Your task to perform on an android device: Open calendar and show me the third week of next month Image 0: 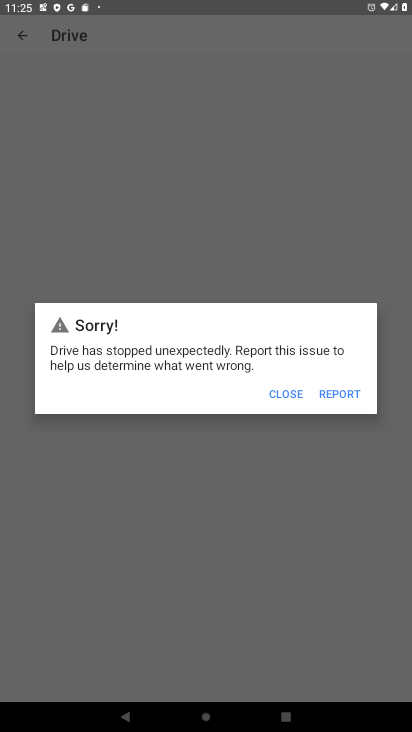
Step 0: press home button
Your task to perform on an android device: Open calendar and show me the third week of next month Image 1: 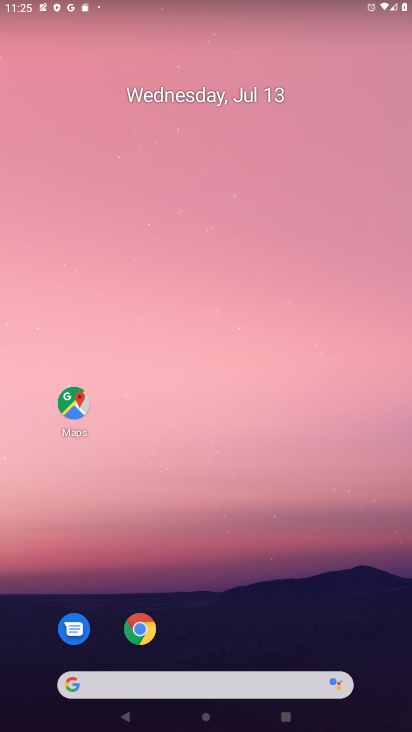
Step 1: drag from (333, 604) to (320, 327)
Your task to perform on an android device: Open calendar and show me the third week of next month Image 2: 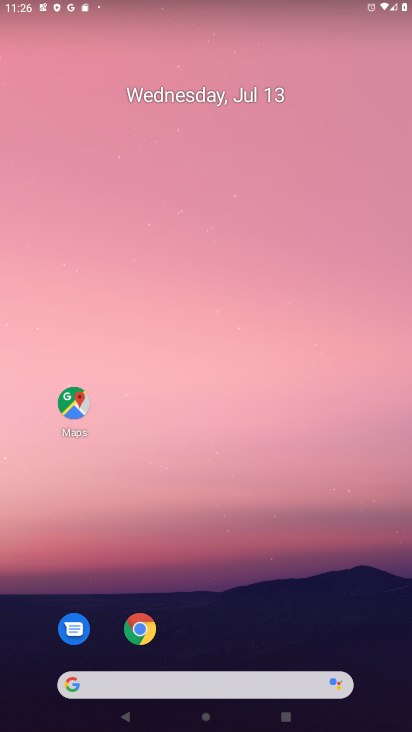
Step 2: drag from (247, 564) to (172, 73)
Your task to perform on an android device: Open calendar and show me the third week of next month Image 3: 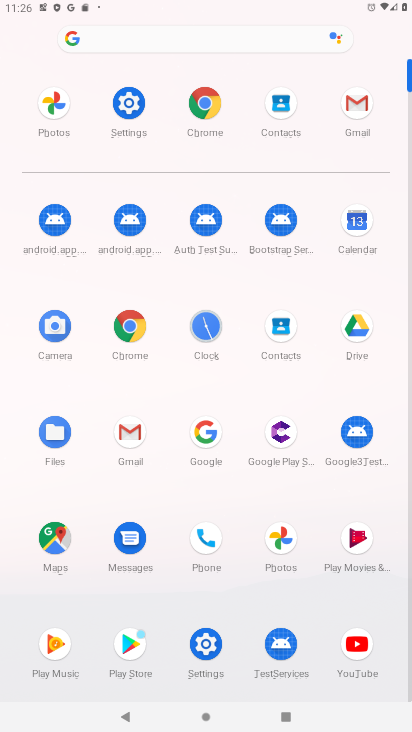
Step 3: click (267, 119)
Your task to perform on an android device: Open calendar and show me the third week of next month Image 4: 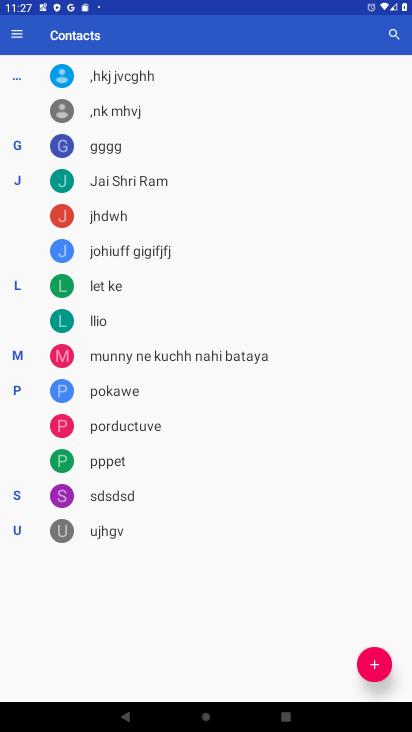
Step 4: press back button
Your task to perform on an android device: Open calendar and show me the third week of next month Image 5: 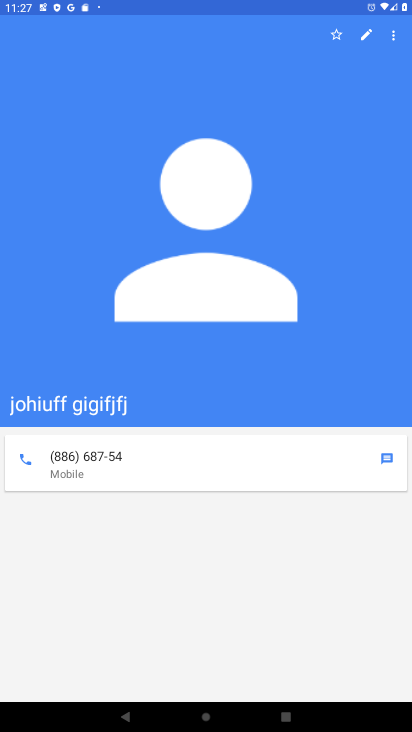
Step 5: press back button
Your task to perform on an android device: Open calendar and show me the third week of next month Image 6: 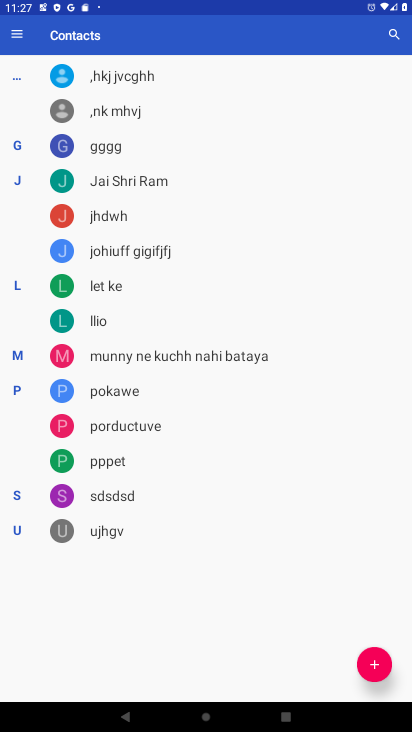
Step 6: press back button
Your task to perform on an android device: Open calendar and show me the third week of next month Image 7: 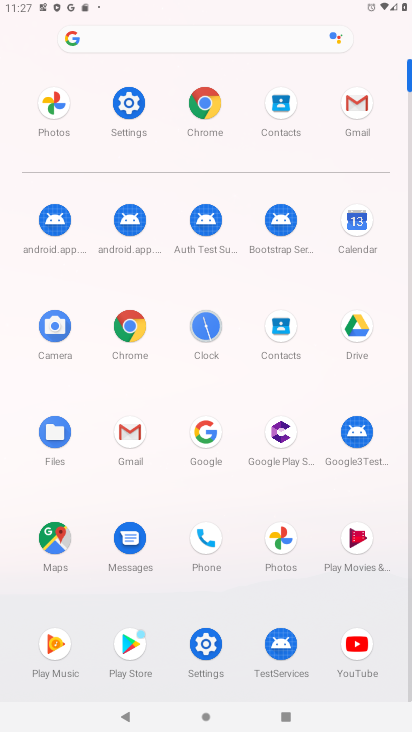
Step 7: click (348, 240)
Your task to perform on an android device: Open calendar and show me the third week of next month Image 8: 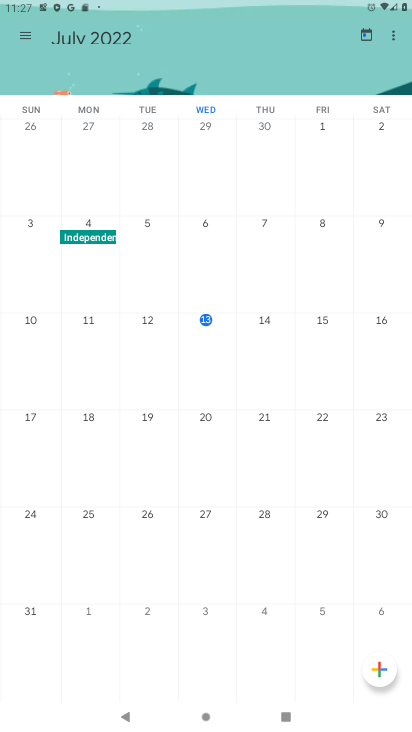
Step 8: task complete